Your task to perform on an android device: Open sound settings Image 0: 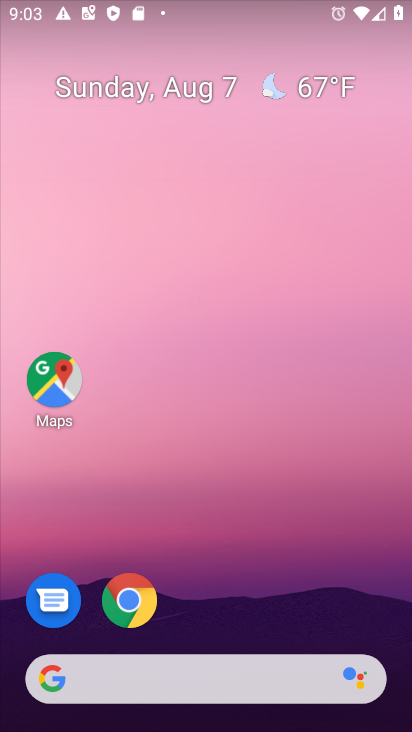
Step 0: drag from (196, 561) to (200, 167)
Your task to perform on an android device: Open sound settings Image 1: 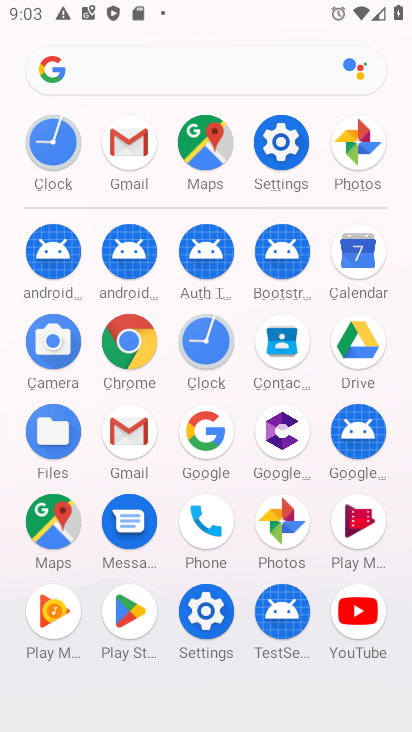
Step 1: click (200, 619)
Your task to perform on an android device: Open sound settings Image 2: 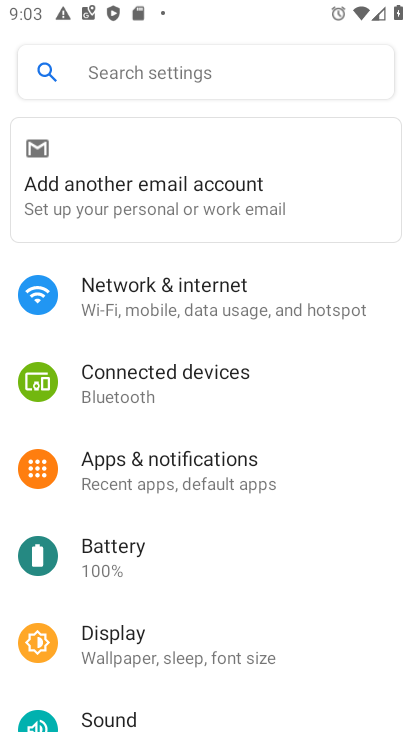
Step 2: click (113, 717)
Your task to perform on an android device: Open sound settings Image 3: 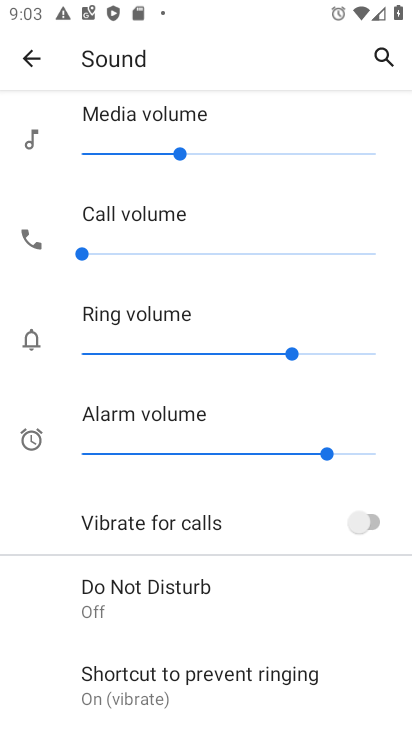
Step 3: task complete